Your task to perform on an android device: What is the recent news? Image 0: 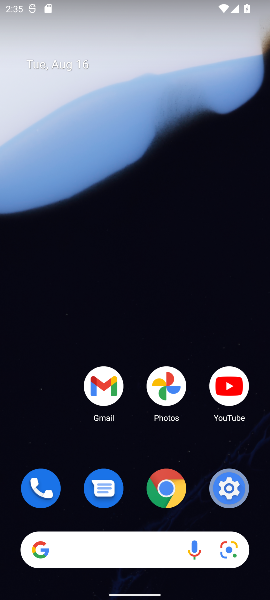
Step 0: drag from (86, 598) to (146, 417)
Your task to perform on an android device: What is the recent news? Image 1: 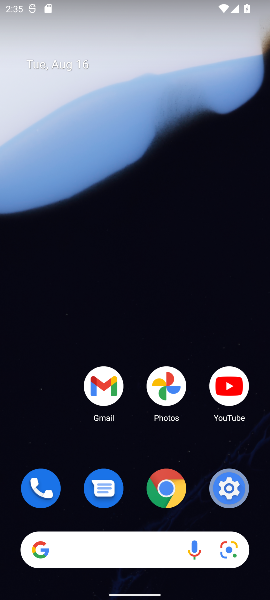
Step 1: click (137, 555)
Your task to perform on an android device: What is the recent news? Image 2: 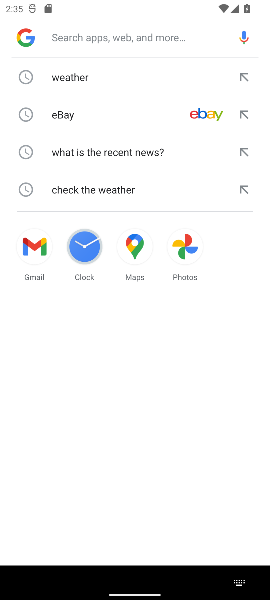
Step 2: type "What is the recent news?"
Your task to perform on an android device: What is the recent news? Image 3: 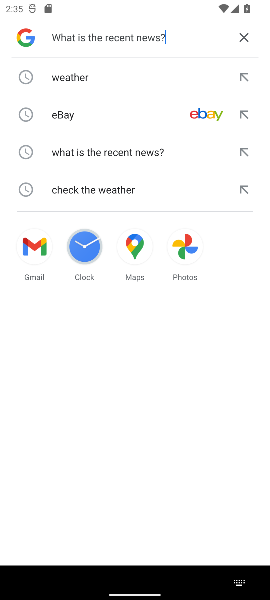
Step 3: press enter
Your task to perform on an android device: What is the recent news? Image 4: 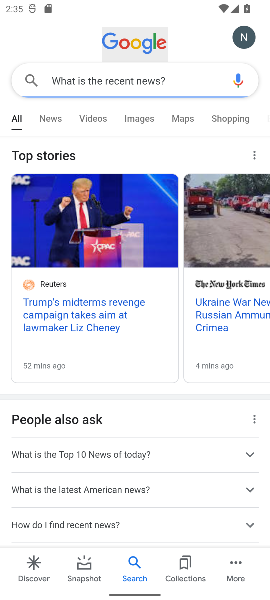
Step 4: task complete